Your task to perform on an android device: Show me popular videos on Youtube Image 0: 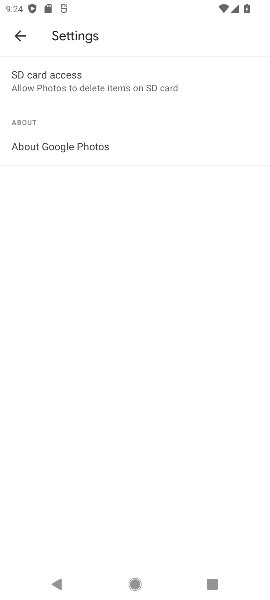
Step 0: press home button
Your task to perform on an android device: Show me popular videos on Youtube Image 1: 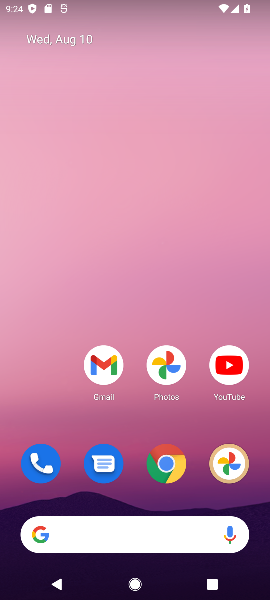
Step 1: click (223, 364)
Your task to perform on an android device: Show me popular videos on Youtube Image 2: 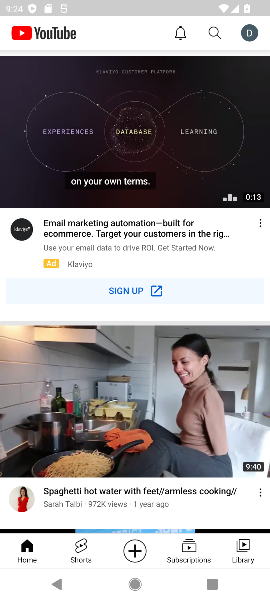
Step 2: click (214, 34)
Your task to perform on an android device: Show me popular videos on Youtube Image 3: 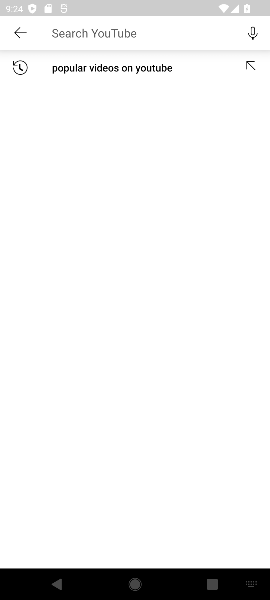
Step 3: click (110, 67)
Your task to perform on an android device: Show me popular videos on Youtube Image 4: 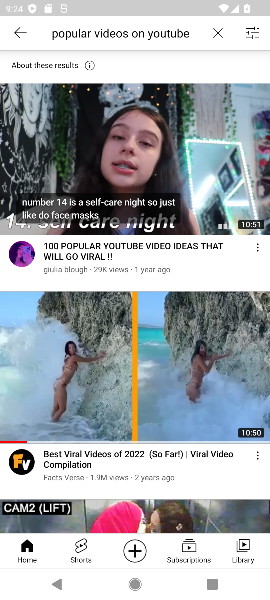
Step 4: task complete